Your task to perform on an android device: turn smart compose on in the gmail app Image 0: 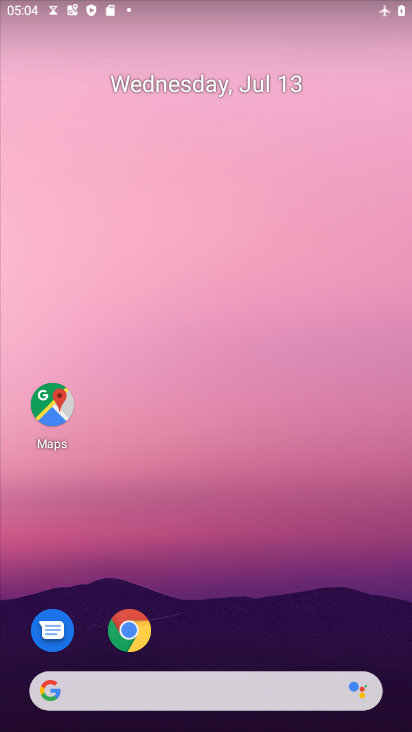
Step 0: drag from (351, 653) to (349, 41)
Your task to perform on an android device: turn smart compose on in the gmail app Image 1: 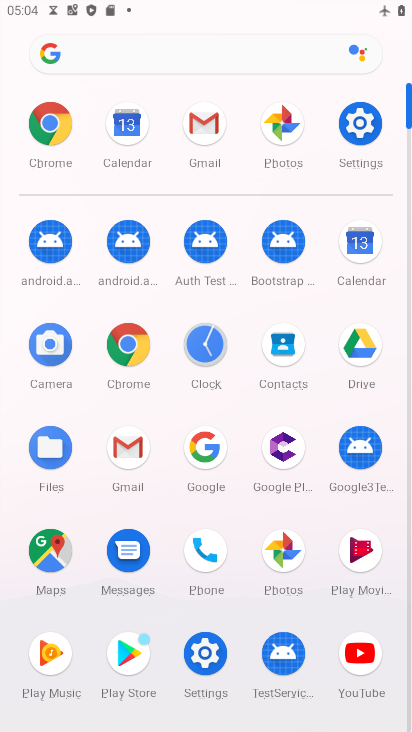
Step 1: click (138, 445)
Your task to perform on an android device: turn smart compose on in the gmail app Image 2: 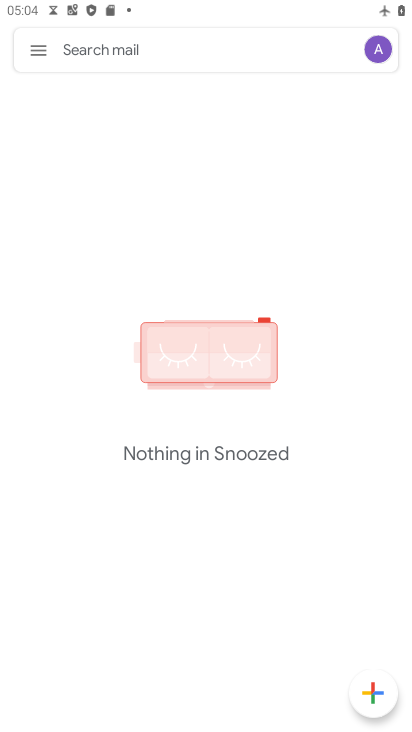
Step 2: click (29, 43)
Your task to perform on an android device: turn smart compose on in the gmail app Image 3: 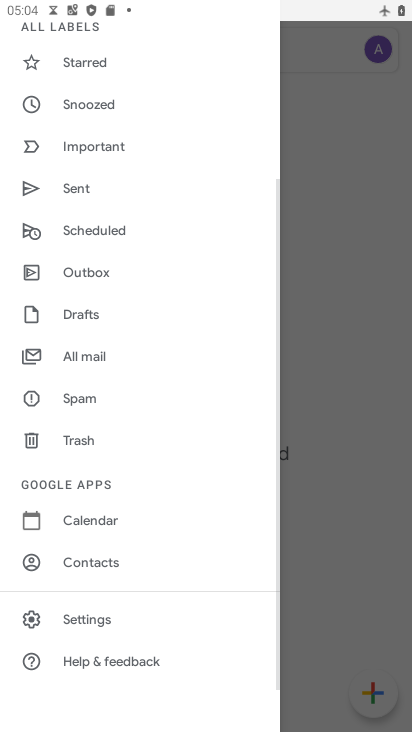
Step 3: click (109, 623)
Your task to perform on an android device: turn smart compose on in the gmail app Image 4: 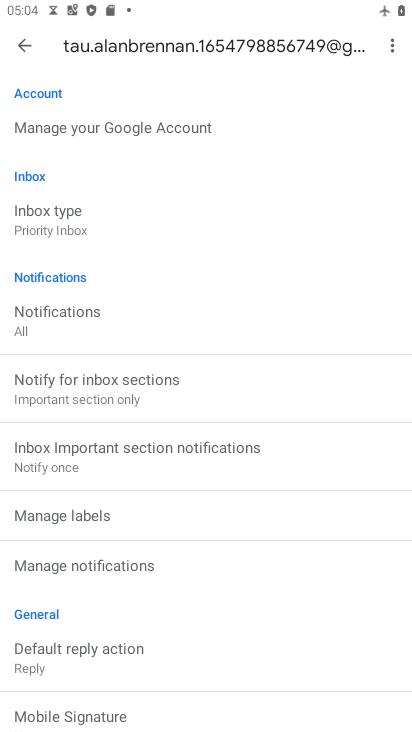
Step 4: task complete